Your task to perform on an android device: Go to wifi settings Image 0: 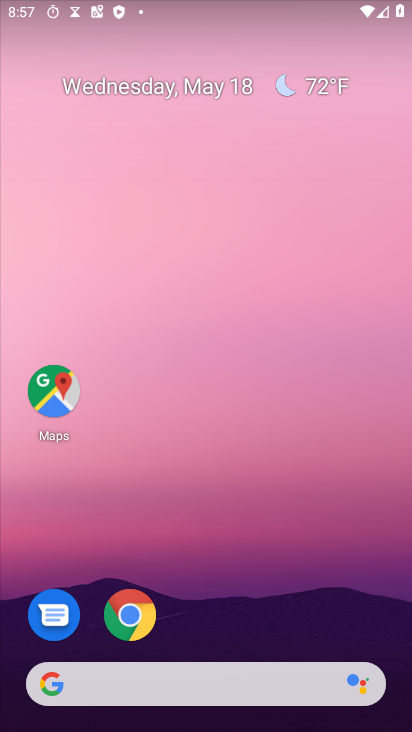
Step 0: drag from (309, 500) to (279, 57)
Your task to perform on an android device: Go to wifi settings Image 1: 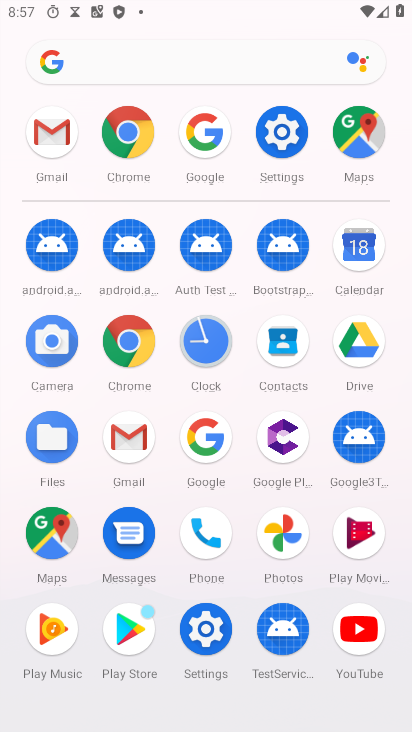
Step 1: click (274, 133)
Your task to perform on an android device: Go to wifi settings Image 2: 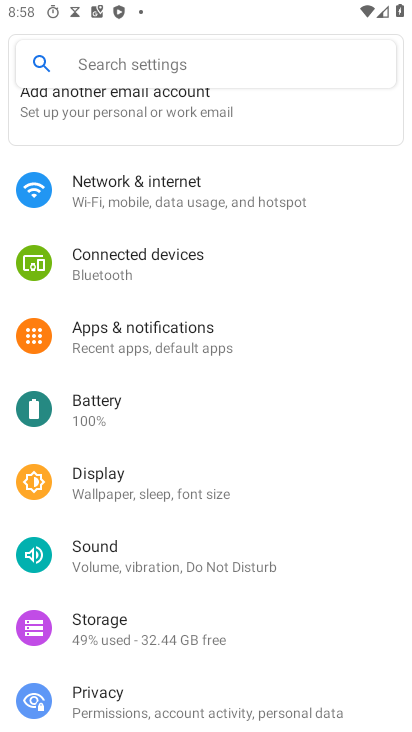
Step 2: click (162, 178)
Your task to perform on an android device: Go to wifi settings Image 3: 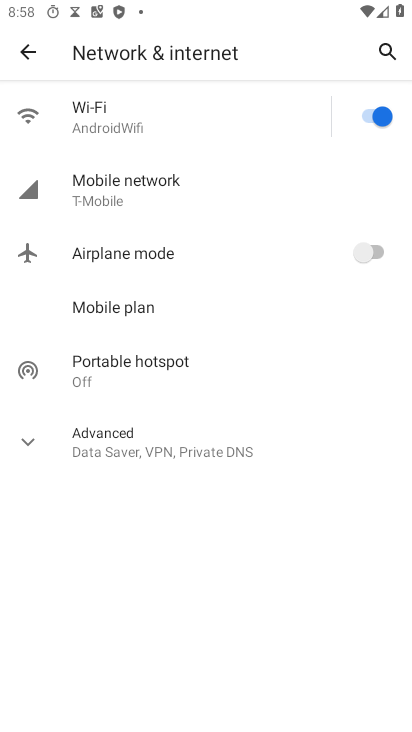
Step 3: click (140, 110)
Your task to perform on an android device: Go to wifi settings Image 4: 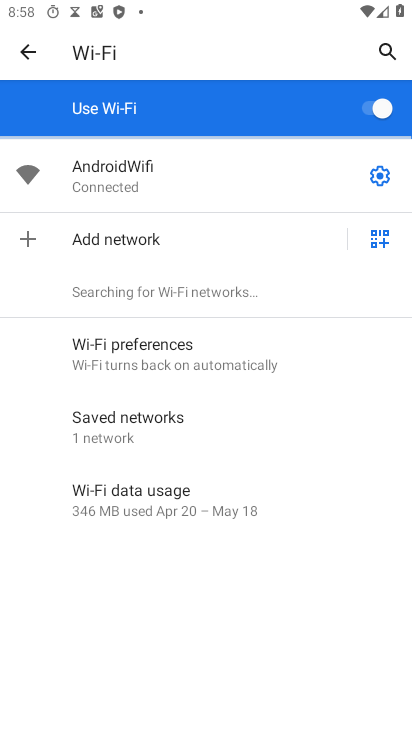
Step 4: task complete